Your task to perform on an android device: turn off picture-in-picture Image 0: 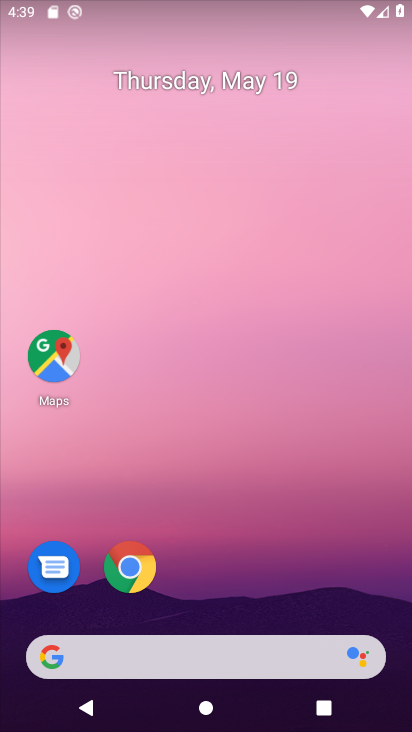
Step 0: click (131, 565)
Your task to perform on an android device: turn off picture-in-picture Image 1: 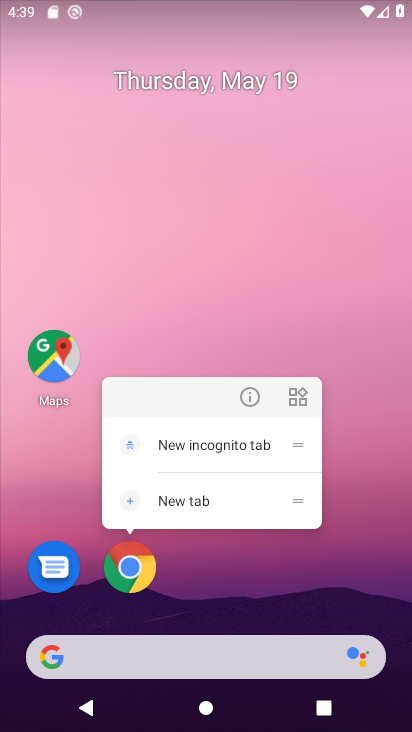
Step 1: click (247, 394)
Your task to perform on an android device: turn off picture-in-picture Image 2: 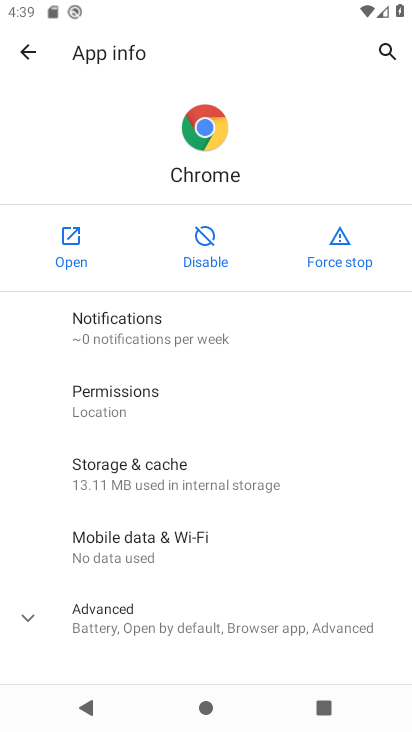
Step 2: click (162, 630)
Your task to perform on an android device: turn off picture-in-picture Image 3: 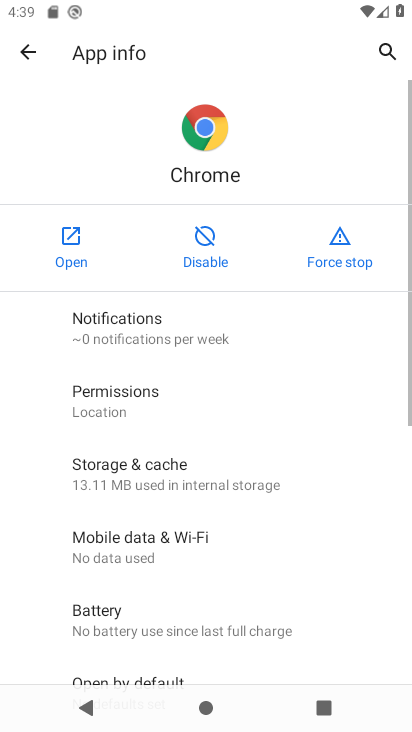
Step 3: drag from (178, 603) to (142, 450)
Your task to perform on an android device: turn off picture-in-picture Image 4: 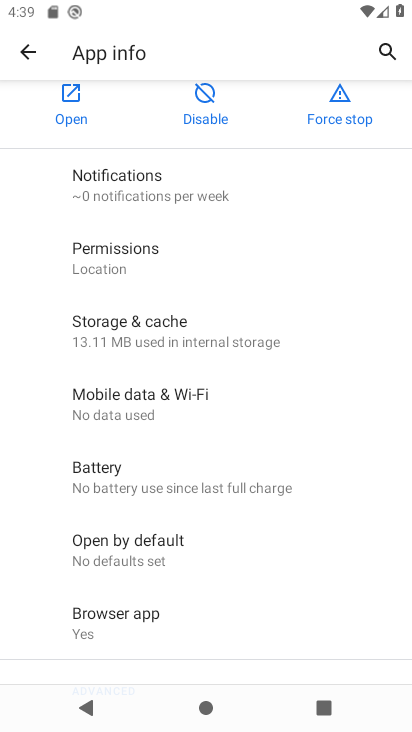
Step 4: drag from (147, 592) to (164, 461)
Your task to perform on an android device: turn off picture-in-picture Image 5: 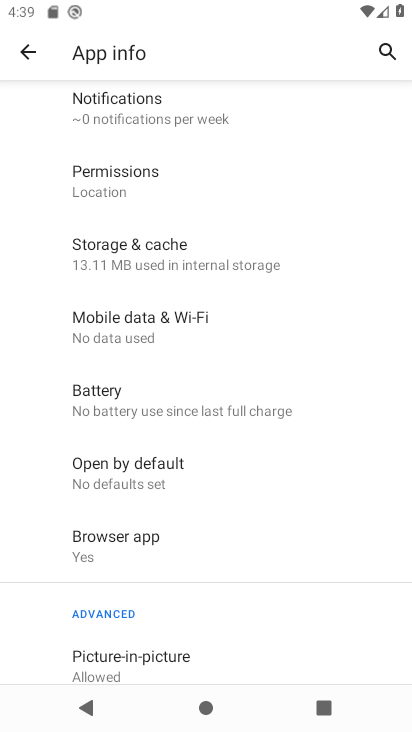
Step 5: drag from (166, 611) to (187, 477)
Your task to perform on an android device: turn off picture-in-picture Image 6: 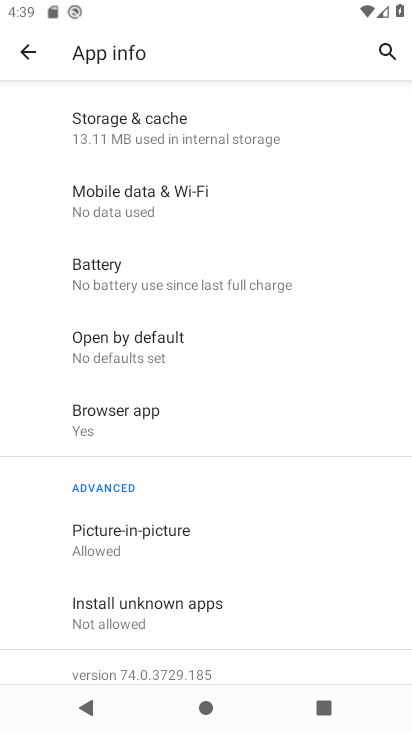
Step 6: click (142, 538)
Your task to perform on an android device: turn off picture-in-picture Image 7: 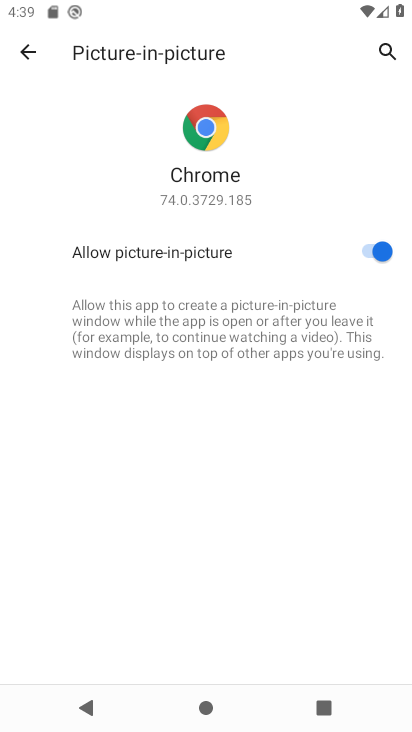
Step 7: click (372, 250)
Your task to perform on an android device: turn off picture-in-picture Image 8: 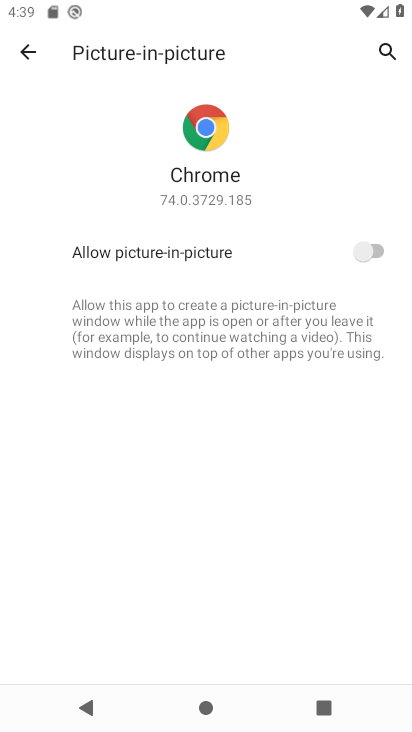
Step 8: task complete